Your task to perform on an android device: Check the weather Image 0: 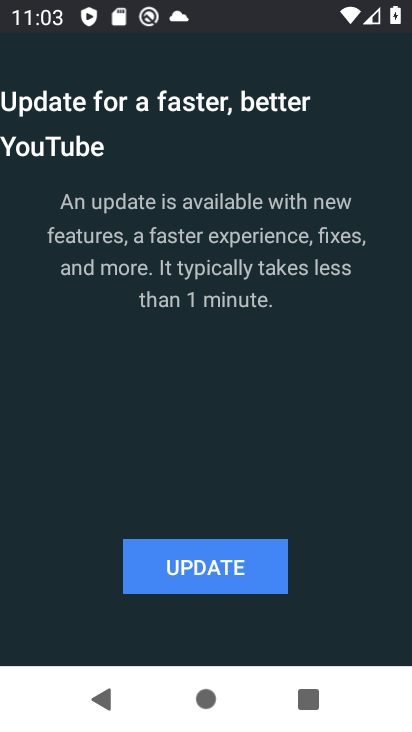
Step 0: press home button
Your task to perform on an android device: Check the weather Image 1: 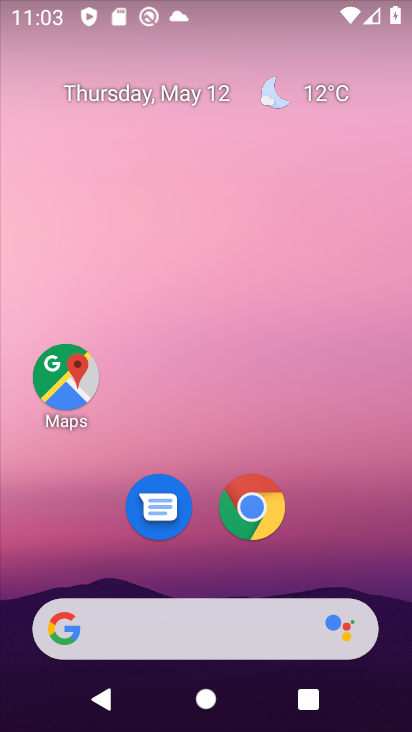
Step 1: drag from (212, 565) to (221, 90)
Your task to perform on an android device: Check the weather Image 2: 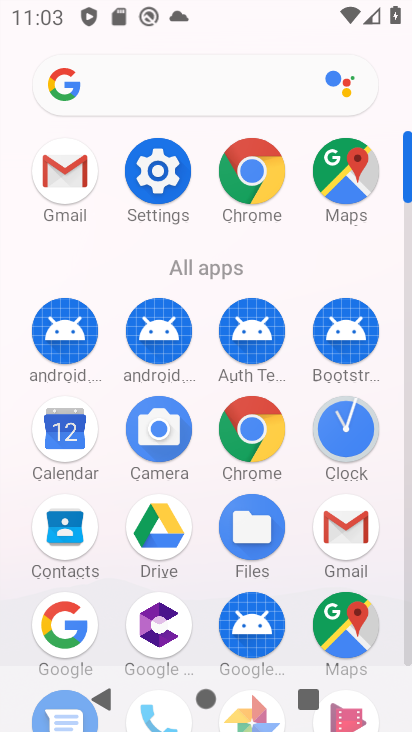
Step 2: press back button
Your task to perform on an android device: Check the weather Image 3: 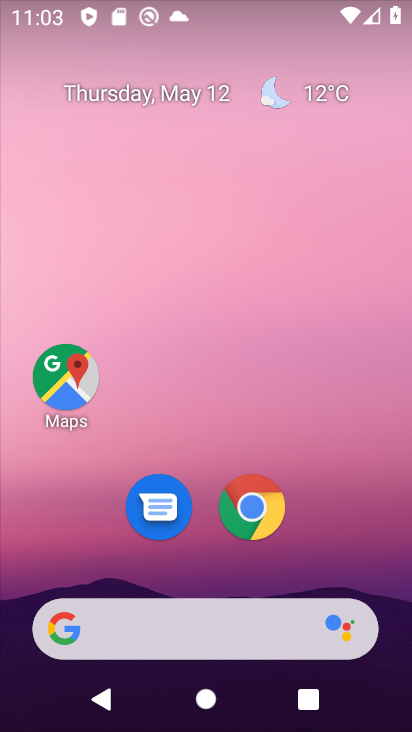
Step 3: click (322, 89)
Your task to perform on an android device: Check the weather Image 4: 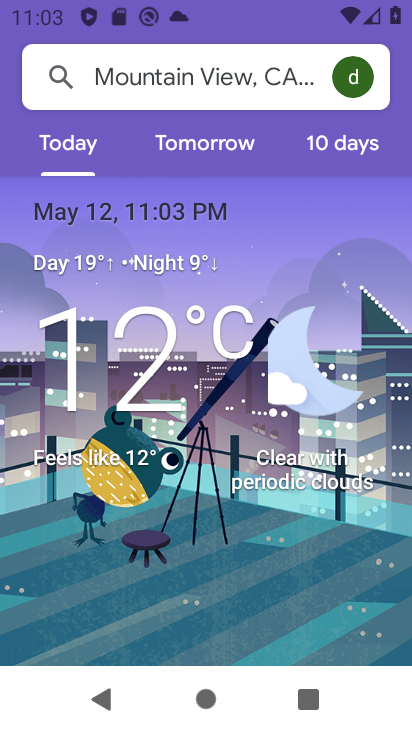
Step 4: task complete